Your task to perform on an android device: refresh tabs in the chrome app Image 0: 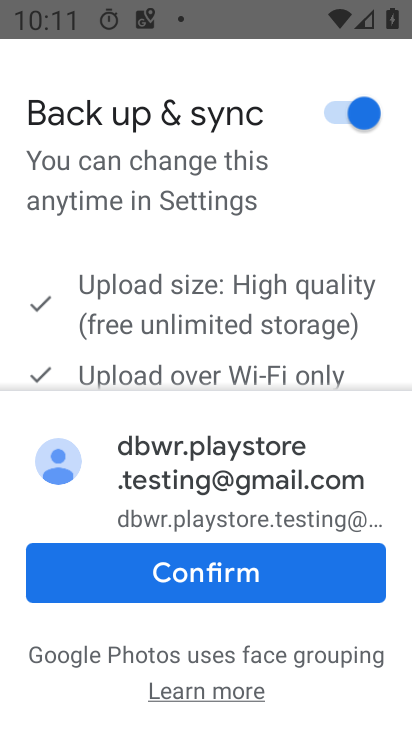
Step 0: press home button
Your task to perform on an android device: refresh tabs in the chrome app Image 1: 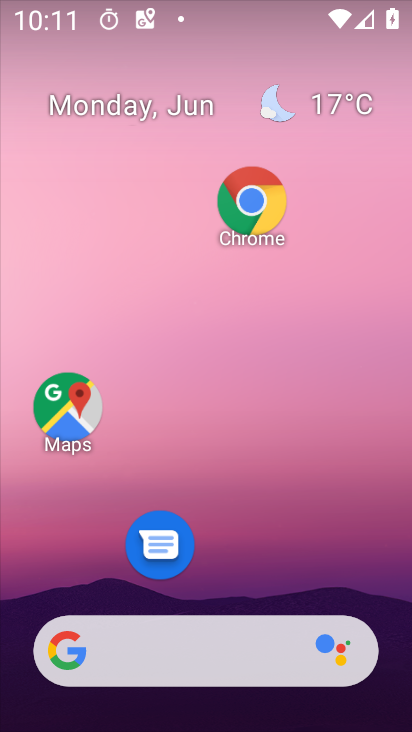
Step 1: drag from (265, 584) to (168, 51)
Your task to perform on an android device: refresh tabs in the chrome app Image 2: 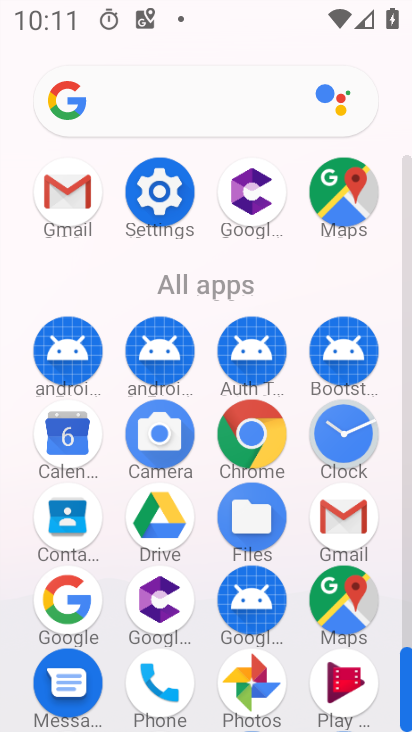
Step 2: click (251, 417)
Your task to perform on an android device: refresh tabs in the chrome app Image 3: 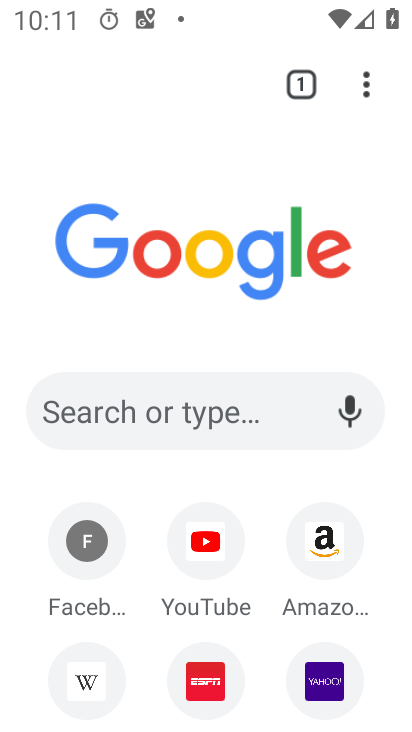
Step 3: click (373, 83)
Your task to perform on an android device: refresh tabs in the chrome app Image 4: 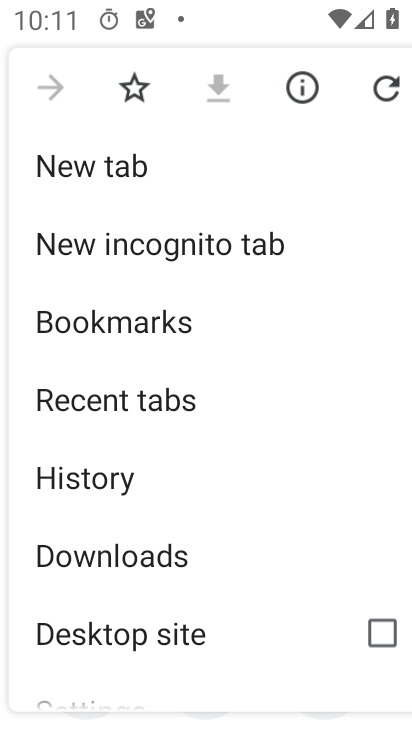
Step 4: click (373, 83)
Your task to perform on an android device: refresh tabs in the chrome app Image 5: 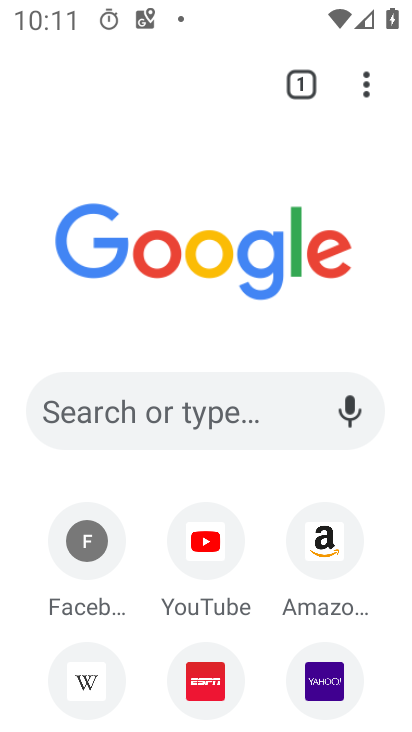
Step 5: task complete